Your task to perform on an android device: When is my next appointment? Image 0: 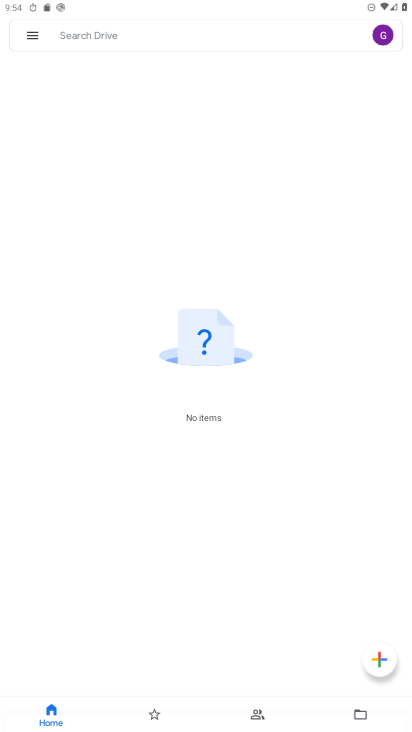
Step 0: press home button
Your task to perform on an android device: When is my next appointment? Image 1: 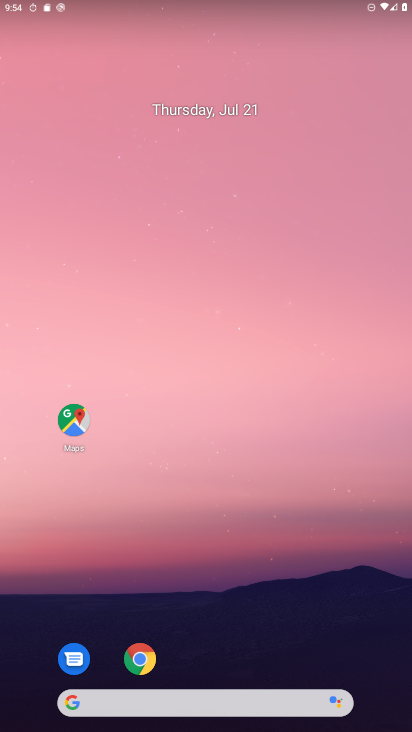
Step 1: drag from (257, 608) to (200, 59)
Your task to perform on an android device: When is my next appointment? Image 2: 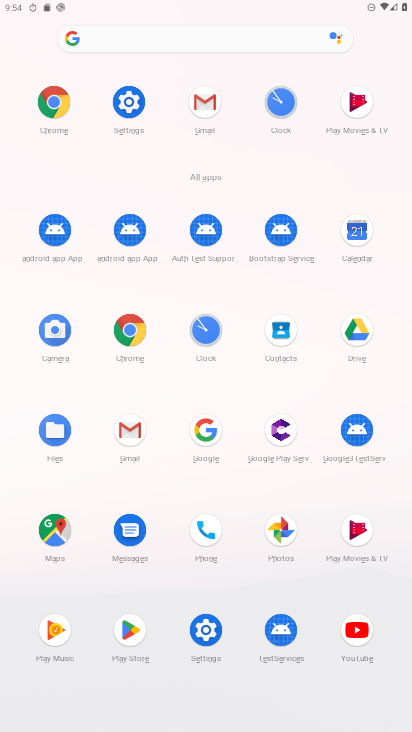
Step 2: click (358, 231)
Your task to perform on an android device: When is my next appointment? Image 3: 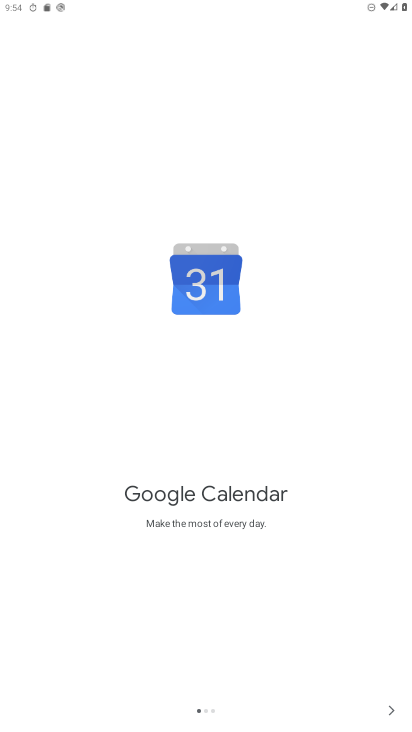
Step 3: click (397, 701)
Your task to perform on an android device: When is my next appointment? Image 4: 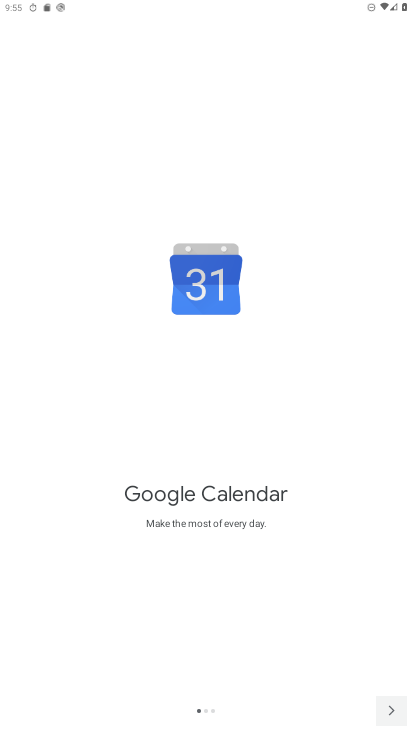
Step 4: click (397, 701)
Your task to perform on an android device: When is my next appointment? Image 5: 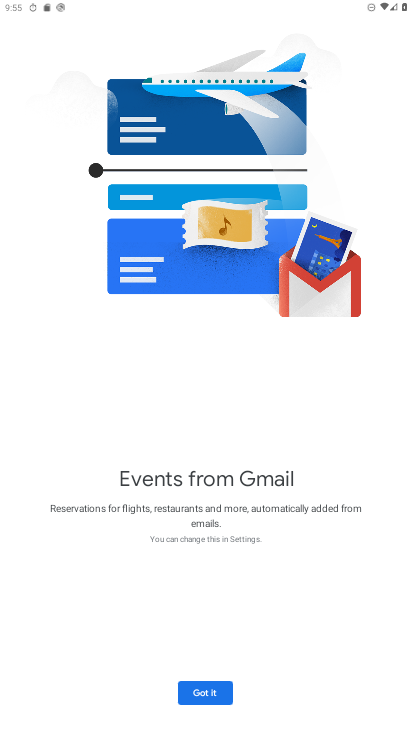
Step 5: click (197, 693)
Your task to perform on an android device: When is my next appointment? Image 6: 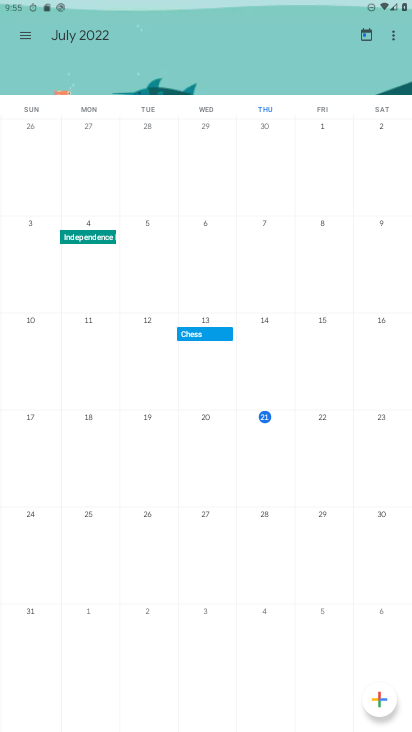
Step 6: click (267, 416)
Your task to perform on an android device: When is my next appointment? Image 7: 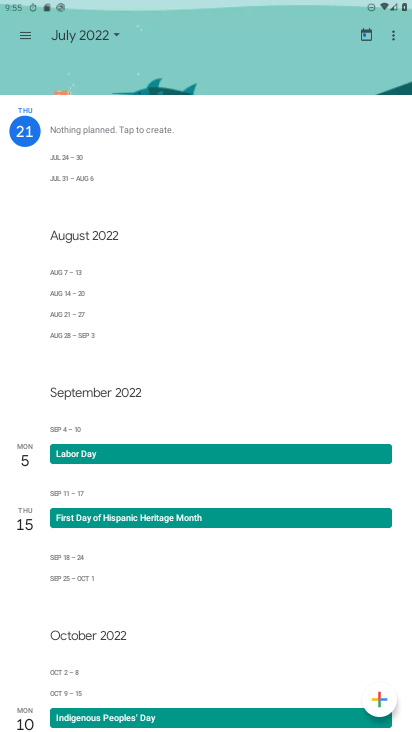
Step 7: task complete